Your task to perform on an android device: Open Chrome and go to settings Image 0: 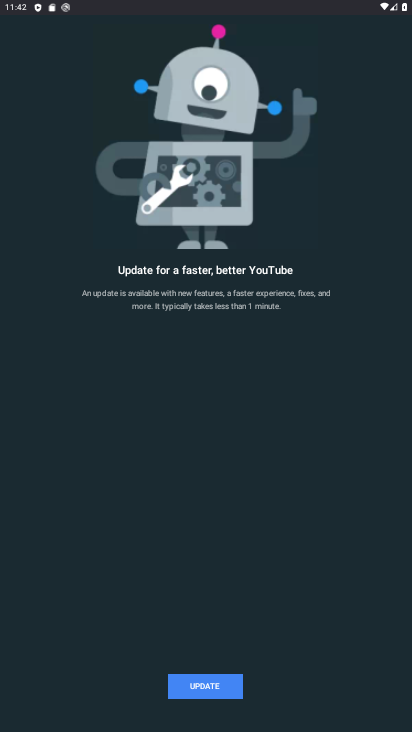
Step 0: press home button
Your task to perform on an android device: Open Chrome and go to settings Image 1: 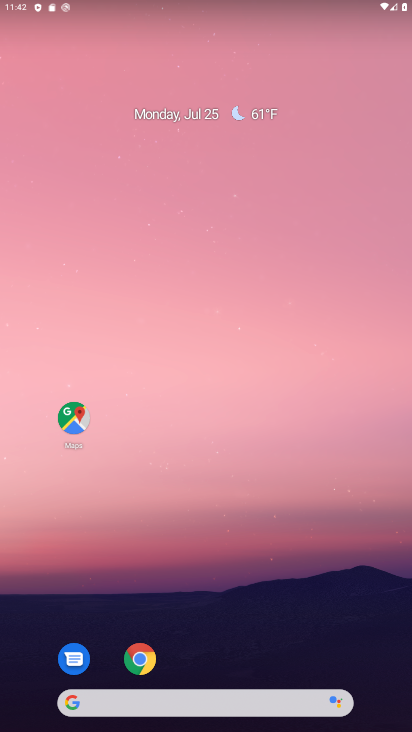
Step 1: click (138, 663)
Your task to perform on an android device: Open Chrome and go to settings Image 2: 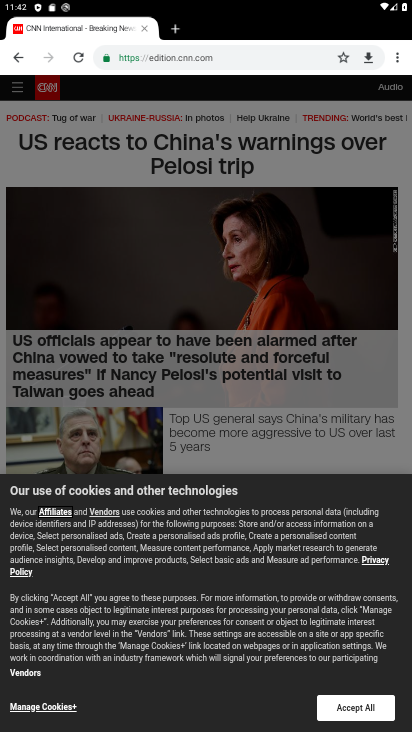
Step 2: click (398, 60)
Your task to perform on an android device: Open Chrome and go to settings Image 3: 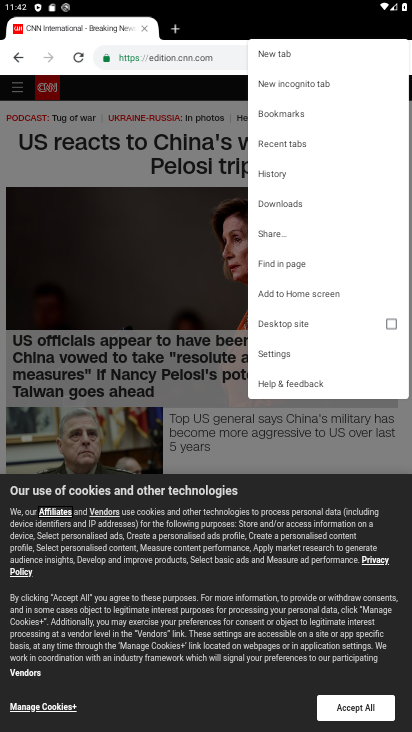
Step 3: click (277, 351)
Your task to perform on an android device: Open Chrome and go to settings Image 4: 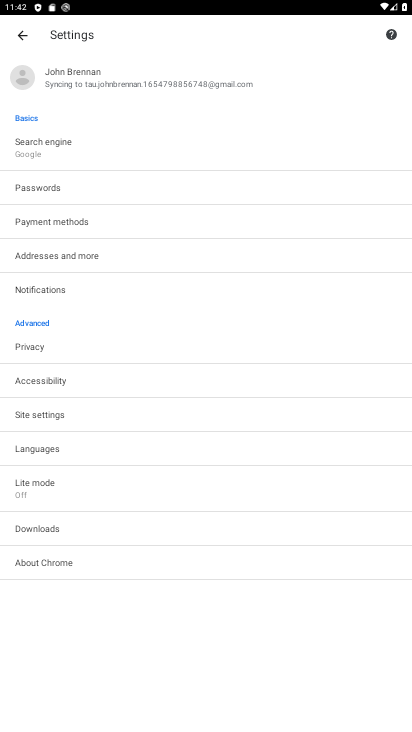
Step 4: task complete